Your task to perform on an android device: empty trash in the gmail app Image 0: 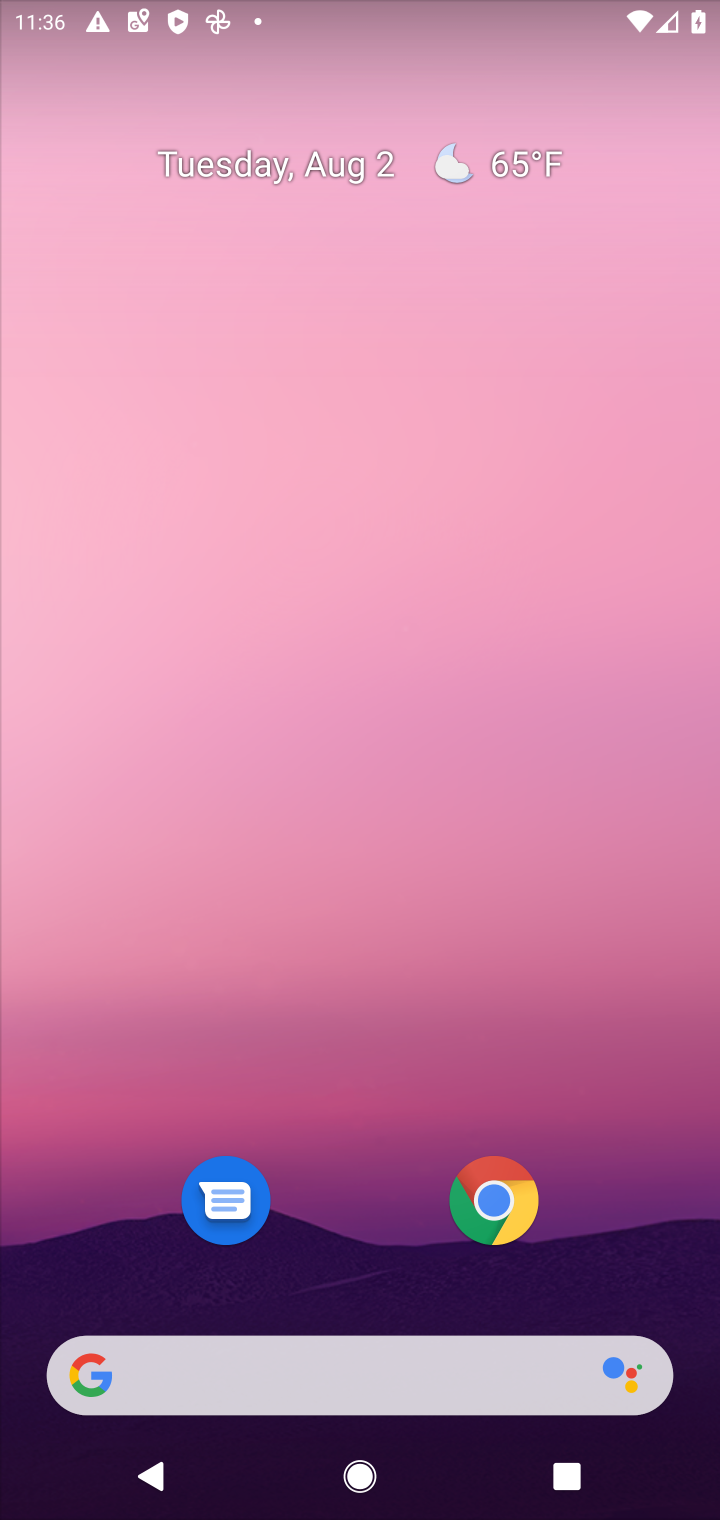
Step 0: drag from (655, 1274) to (609, 218)
Your task to perform on an android device: empty trash in the gmail app Image 1: 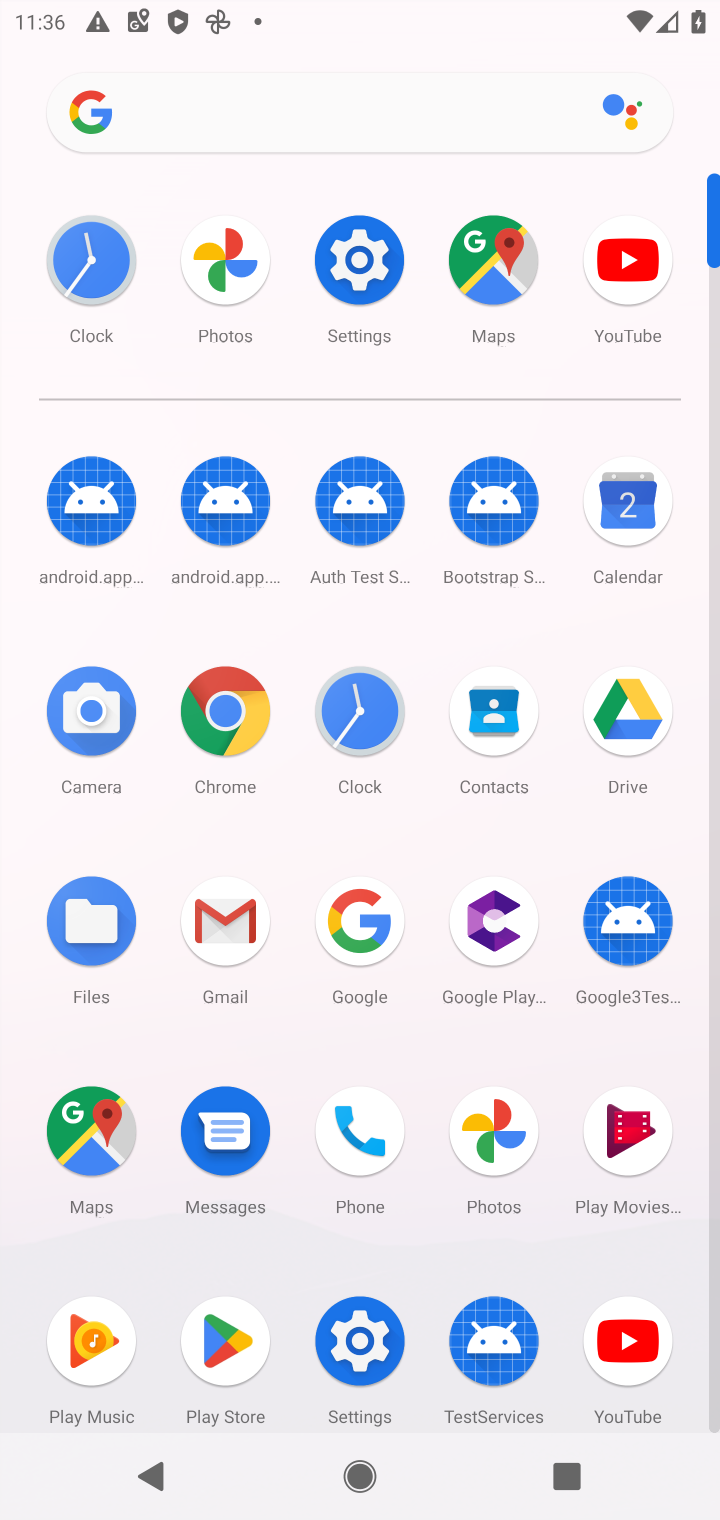
Step 1: click (227, 916)
Your task to perform on an android device: empty trash in the gmail app Image 2: 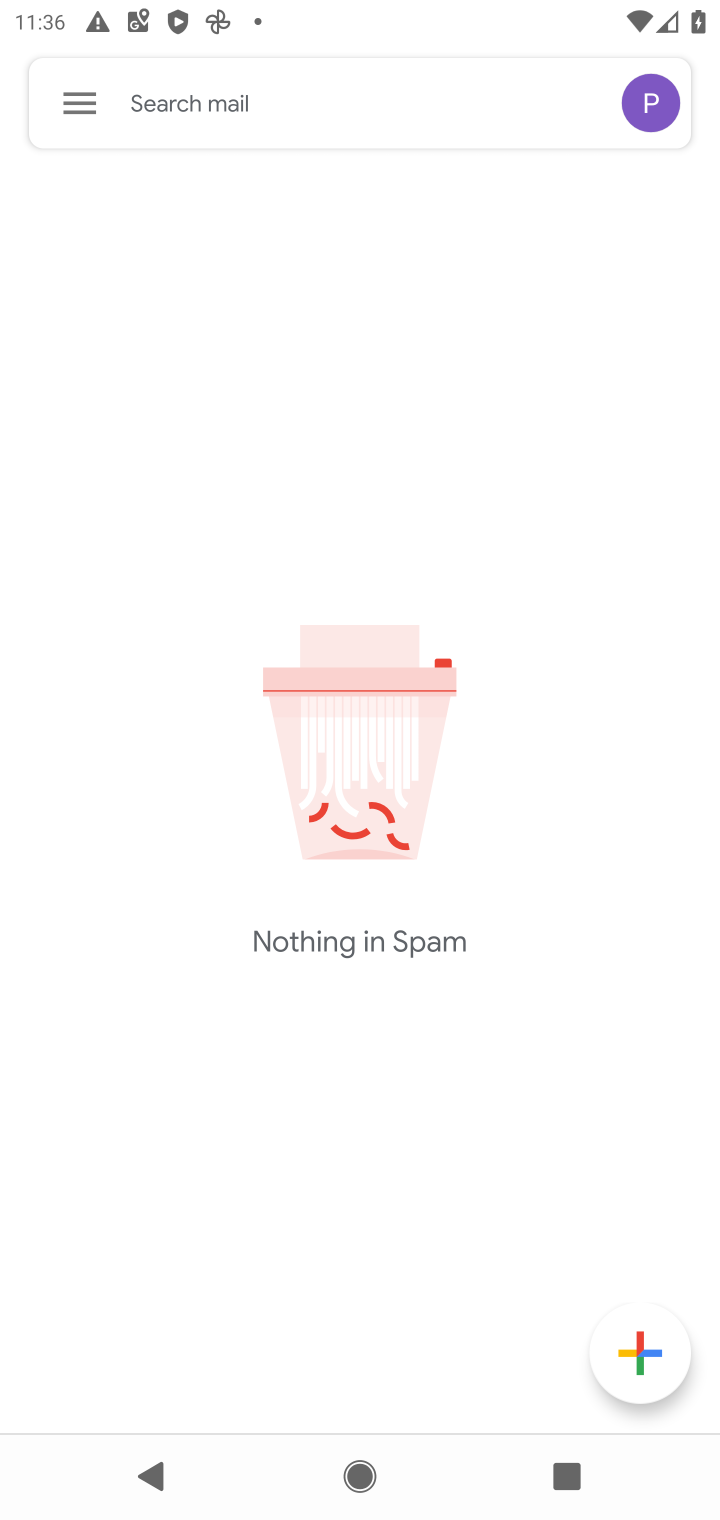
Step 2: click (73, 106)
Your task to perform on an android device: empty trash in the gmail app Image 3: 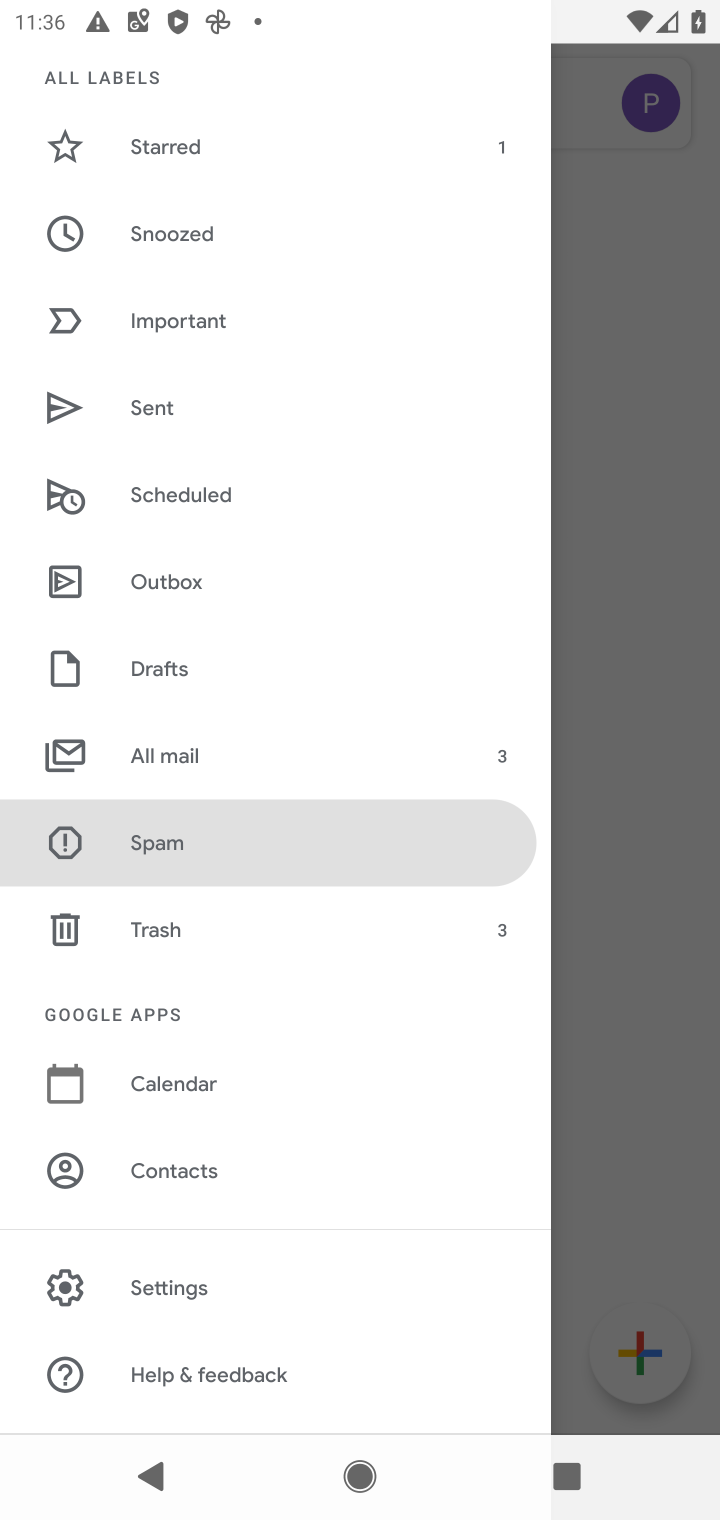
Step 3: click (146, 927)
Your task to perform on an android device: empty trash in the gmail app Image 4: 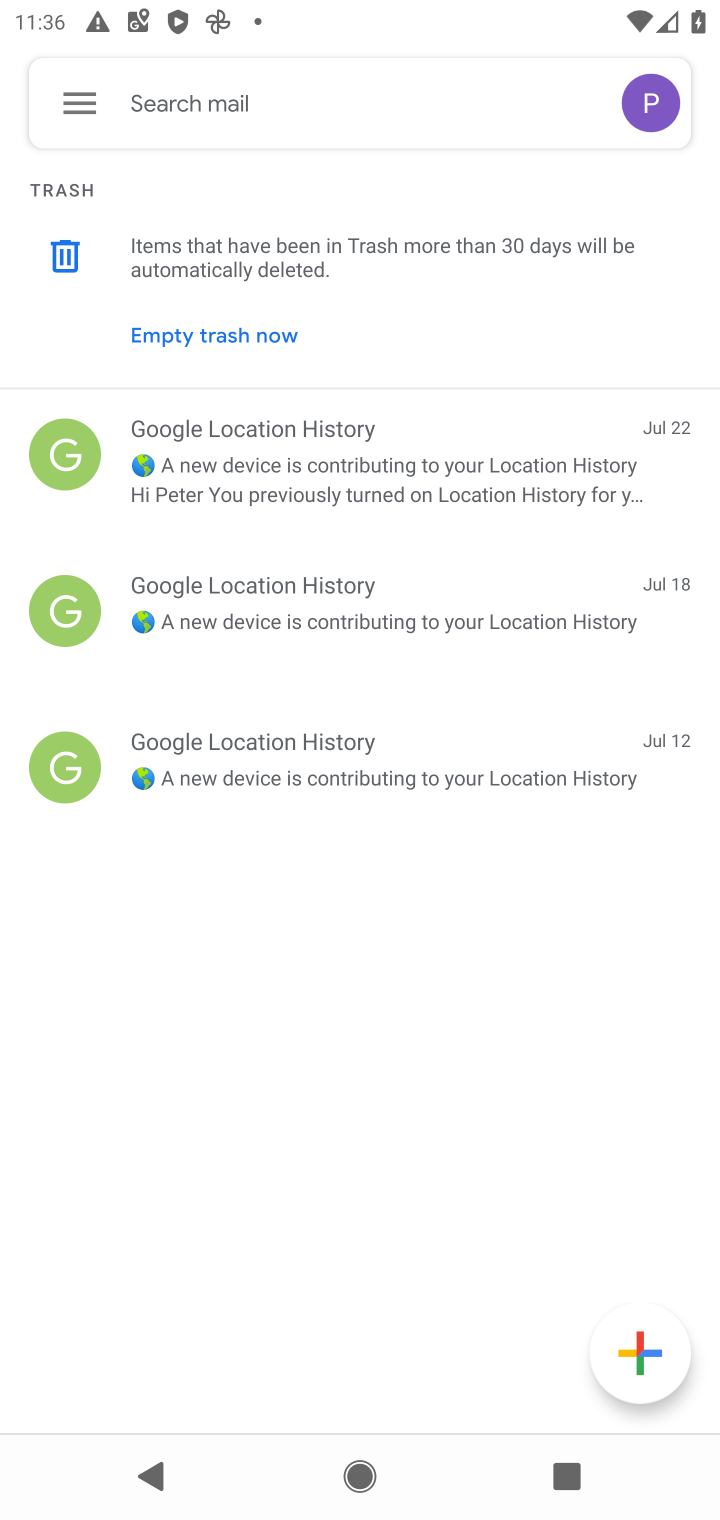
Step 4: click (215, 332)
Your task to perform on an android device: empty trash in the gmail app Image 5: 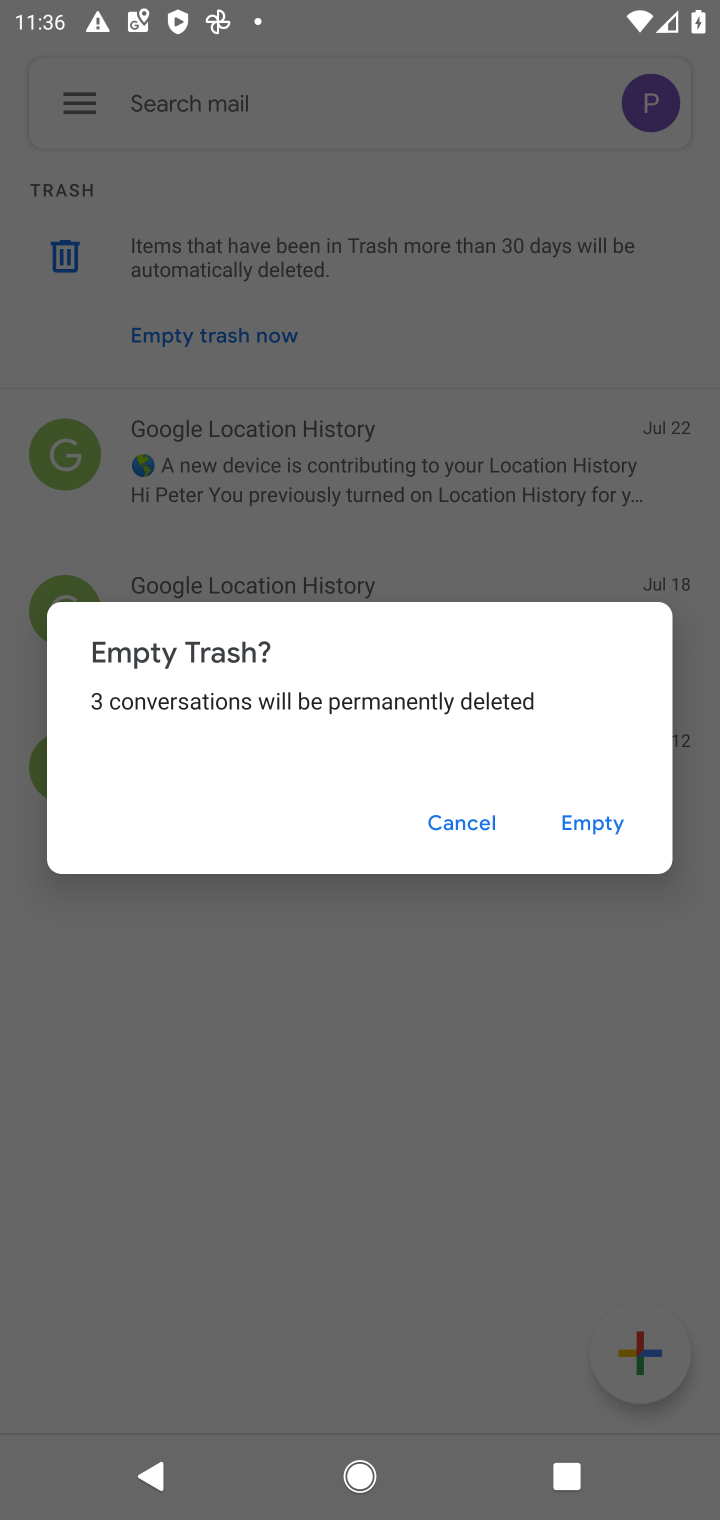
Step 5: click (589, 821)
Your task to perform on an android device: empty trash in the gmail app Image 6: 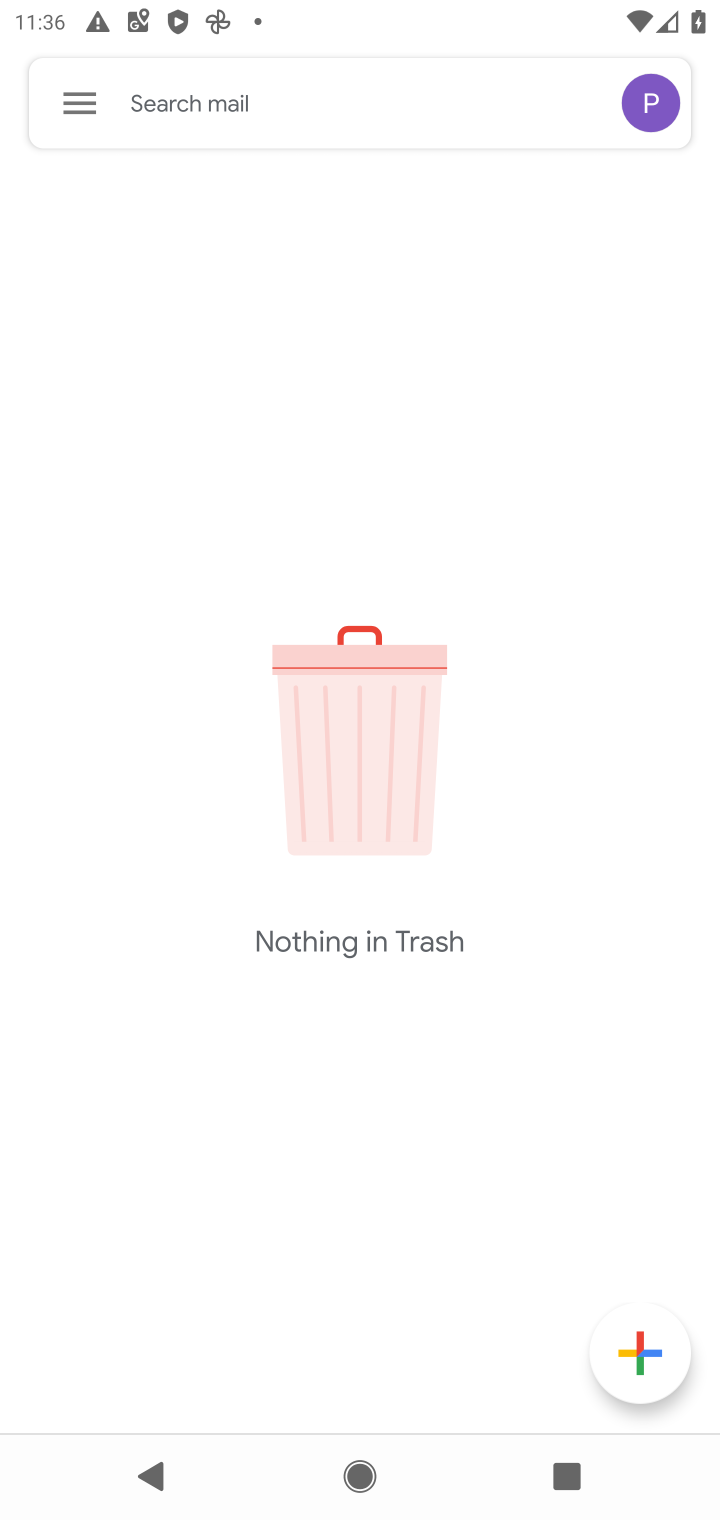
Step 6: task complete